Your task to perform on an android device: turn notification dots off Image 0: 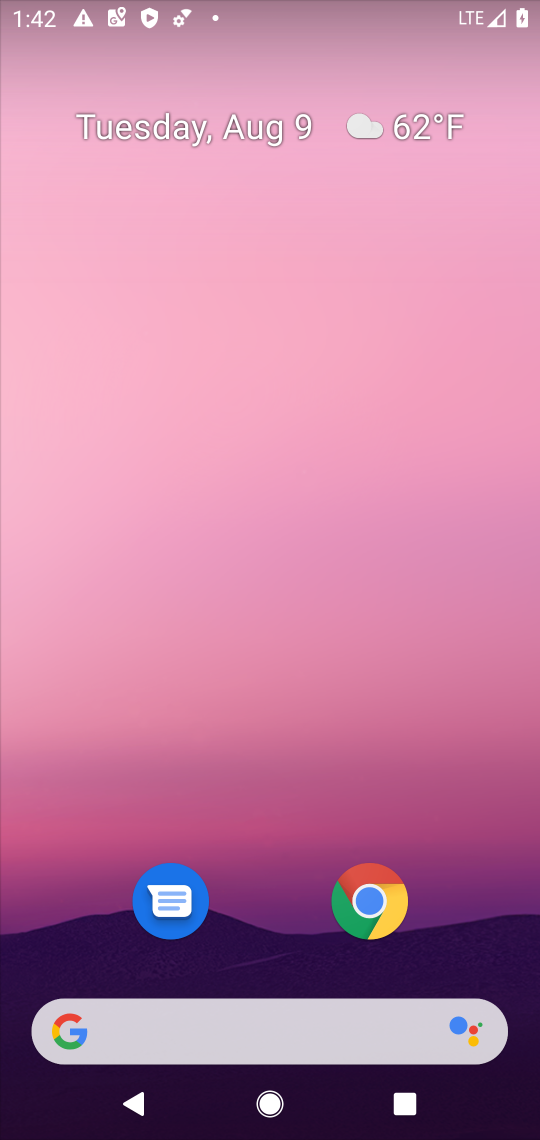
Step 0: drag from (508, 954) to (453, 94)
Your task to perform on an android device: turn notification dots off Image 1: 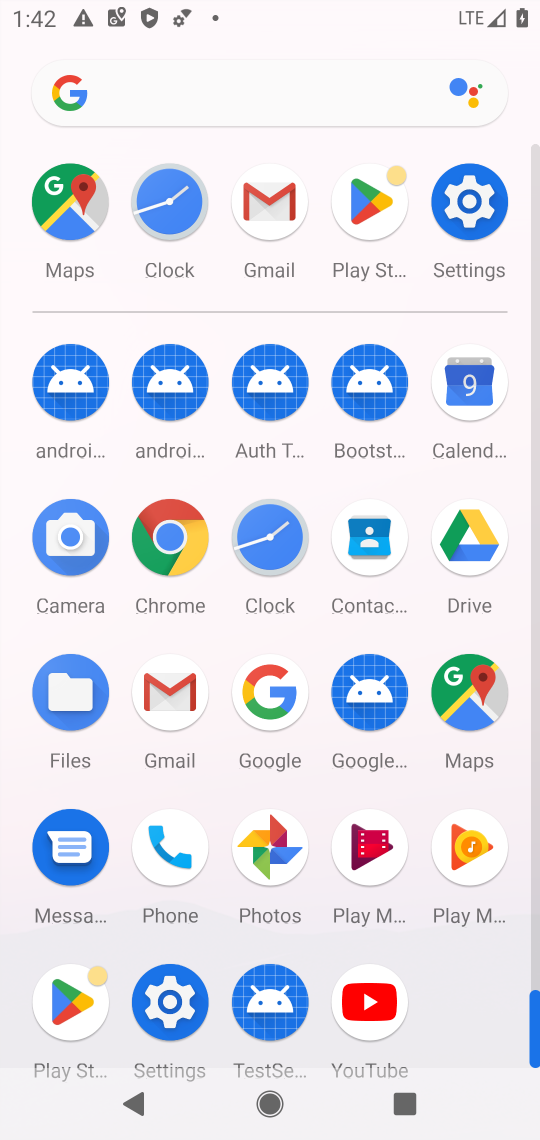
Step 1: click (168, 996)
Your task to perform on an android device: turn notification dots off Image 2: 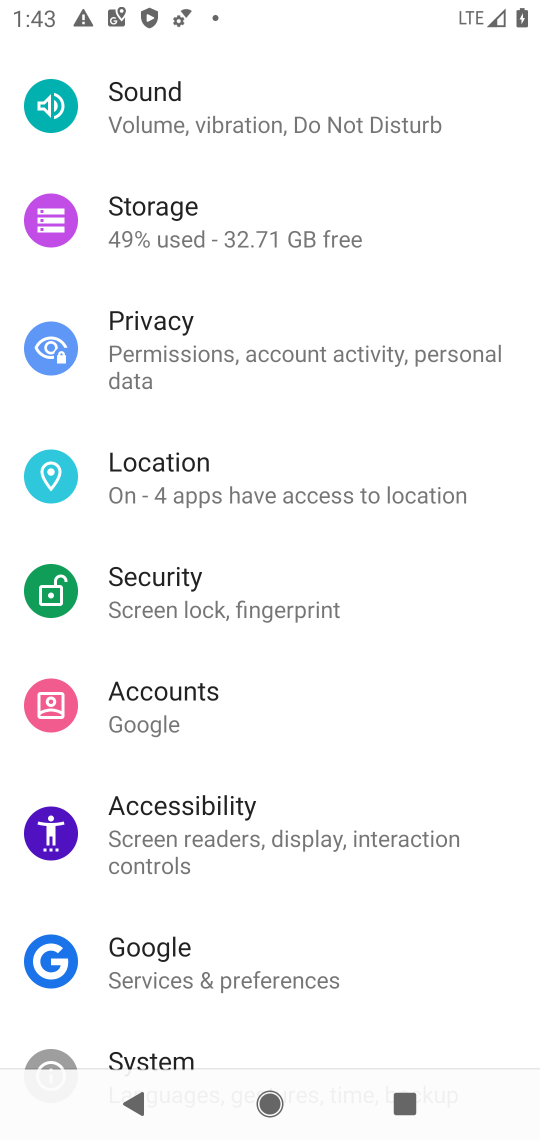
Step 2: drag from (472, 255) to (490, 630)
Your task to perform on an android device: turn notification dots off Image 3: 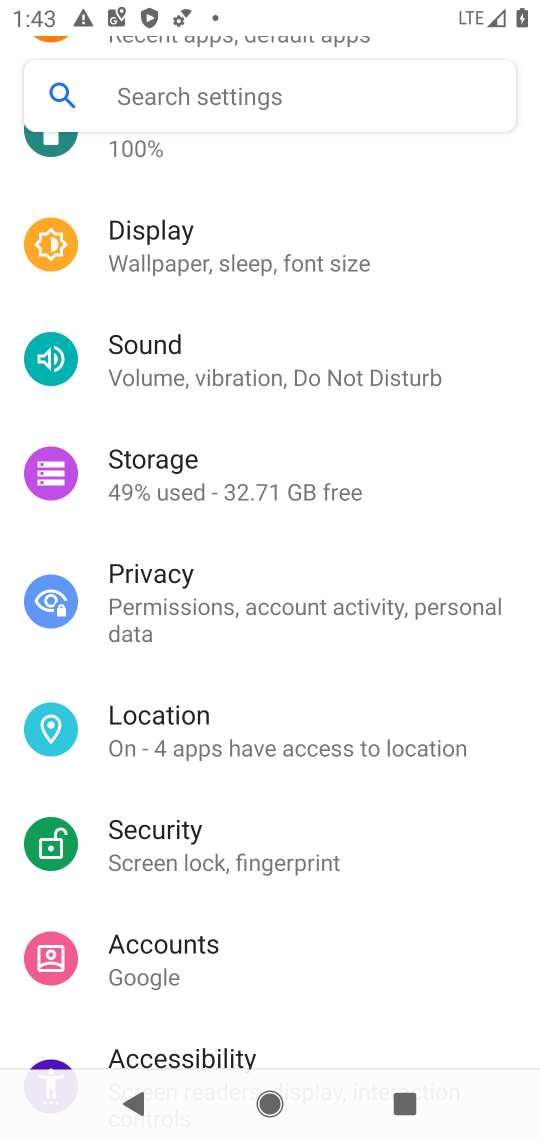
Step 3: drag from (457, 198) to (455, 698)
Your task to perform on an android device: turn notification dots off Image 4: 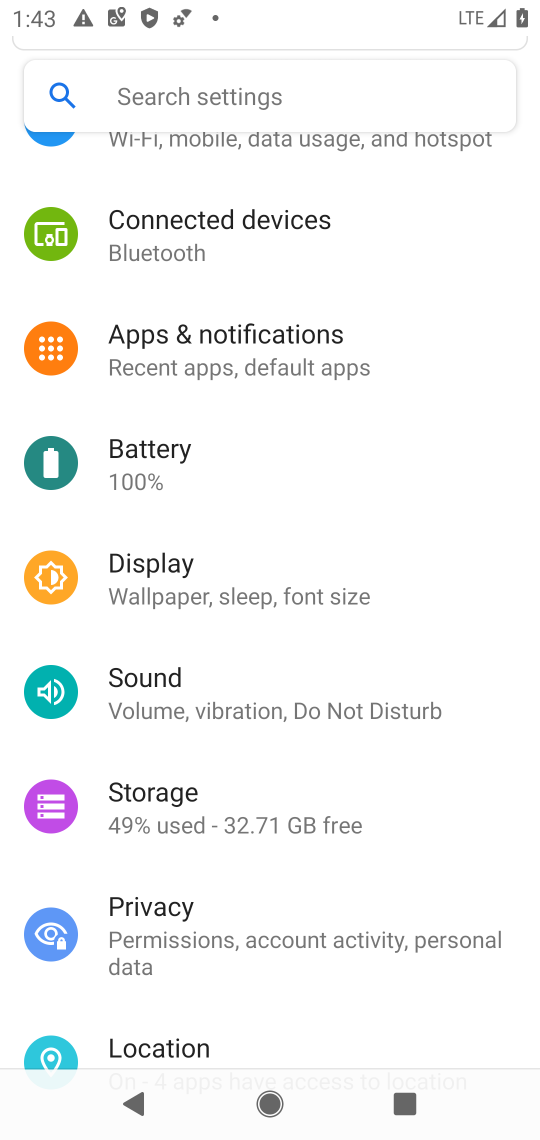
Step 4: drag from (448, 380) to (428, 795)
Your task to perform on an android device: turn notification dots off Image 5: 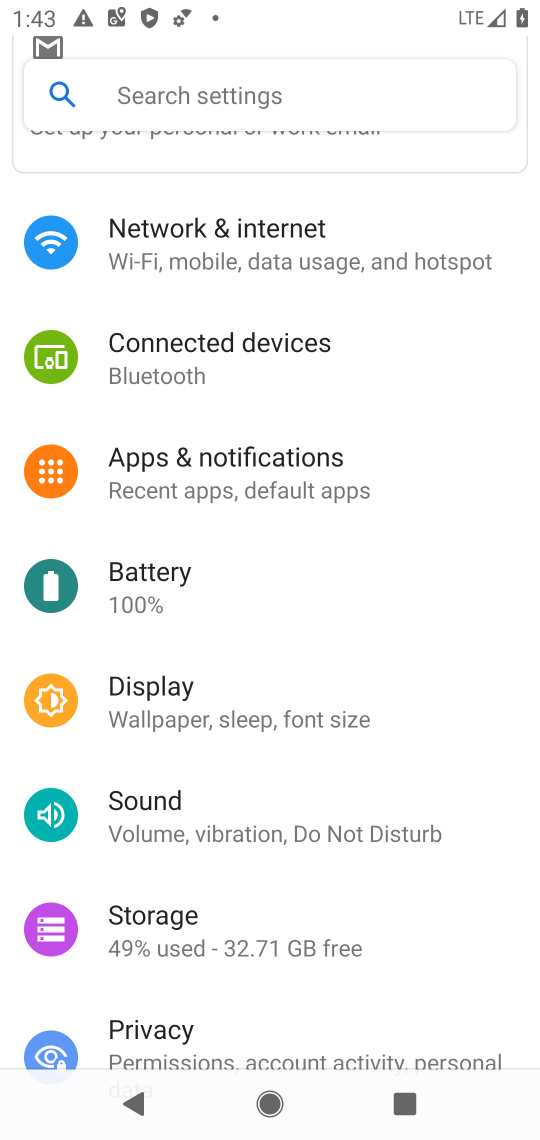
Step 5: click (180, 457)
Your task to perform on an android device: turn notification dots off Image 6: 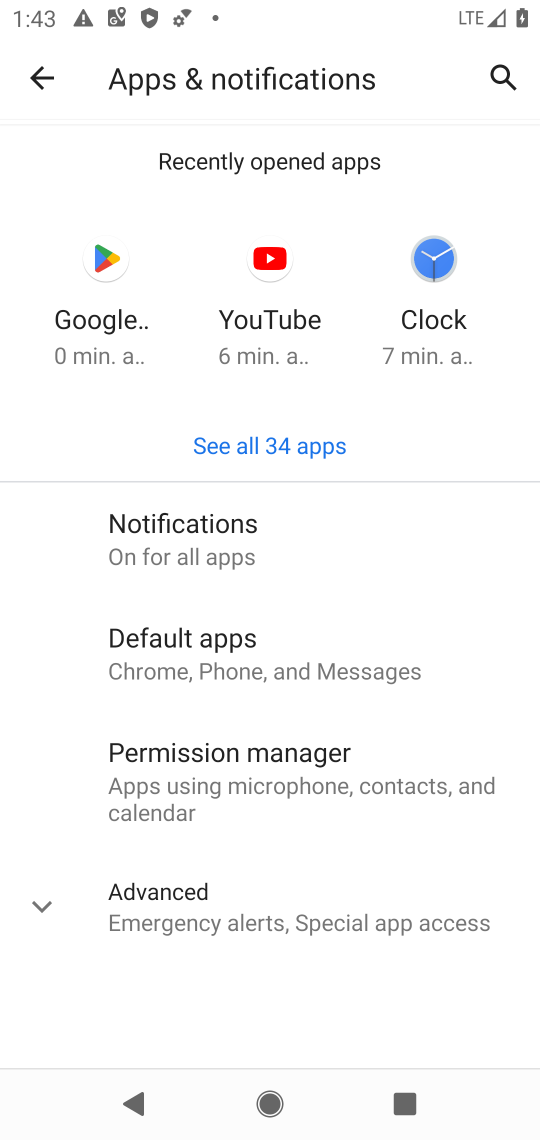
Step 6: click (203, 576)
Your task to perform on an android device: turn notification dots off Image 7: 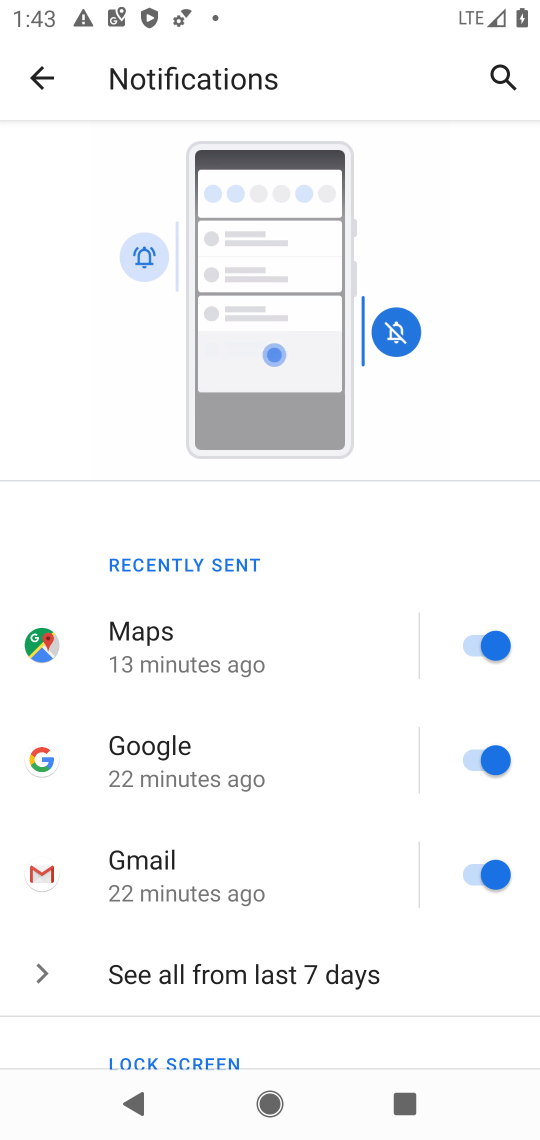
Step 7: drag from (419, 1002) to (408, 212)
Your task to perform on an android device: turn notification dots off Image 8: 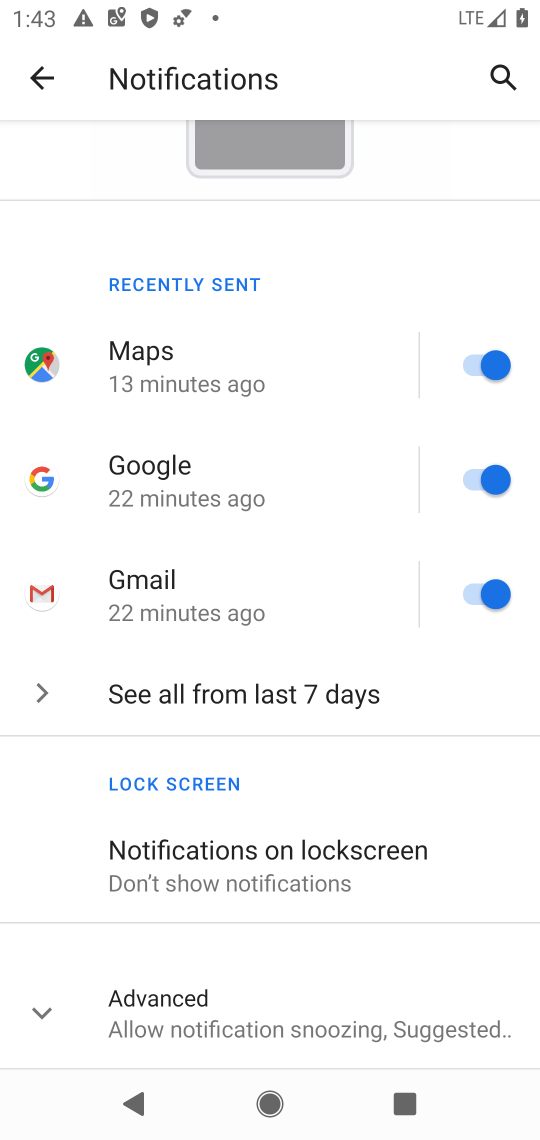
Step 8: click (47, 1013)
Your task to perform on an android device: turn notification dots off Image 9: 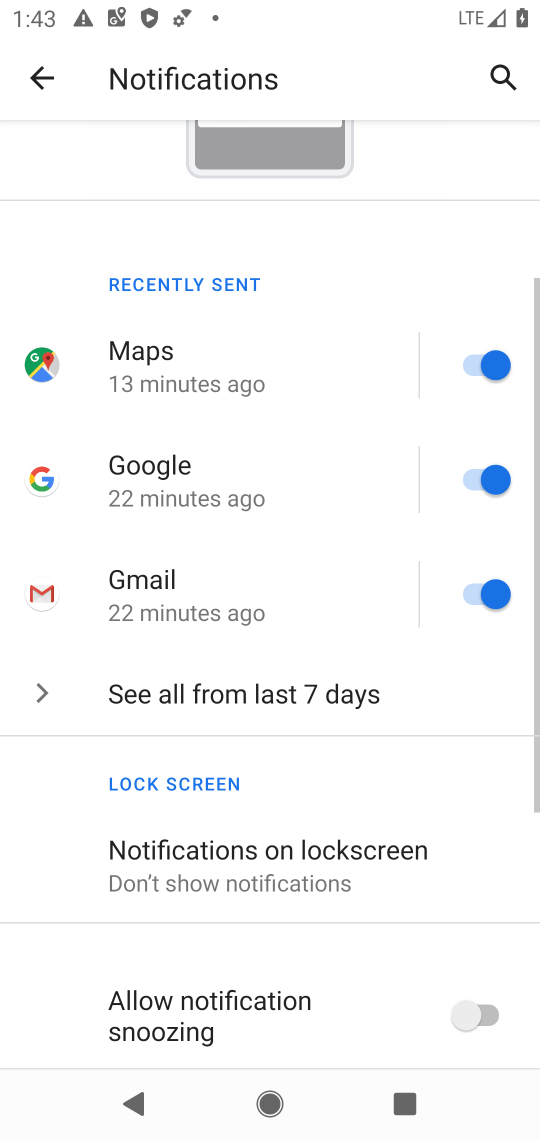
Step 9: drag from (408, 998) to (400, 293)
Your task to perform on an android device: turn notification dots off Image 10: 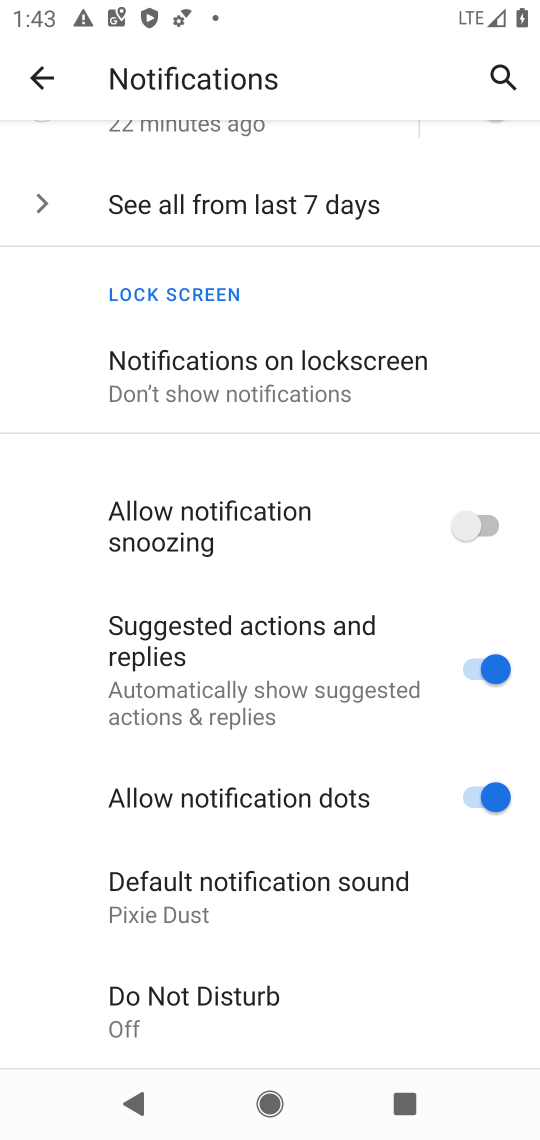
Step 10: click (467, 795)
Your task to perform on an android device: turn notification dots off Image 11: 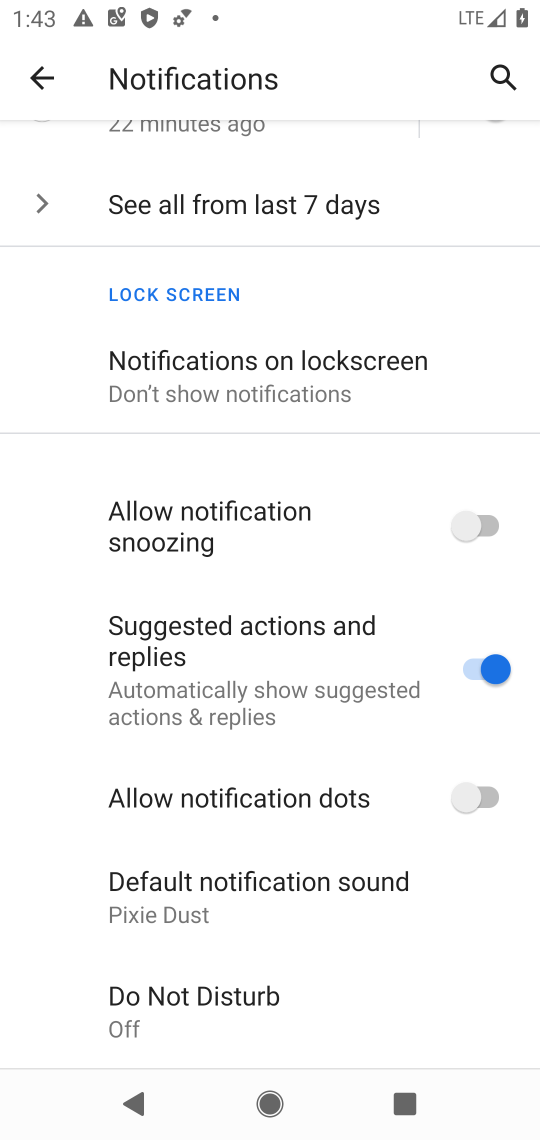
Step 11: task complete